Your task to perform on an android device: Go to Google Image 0: 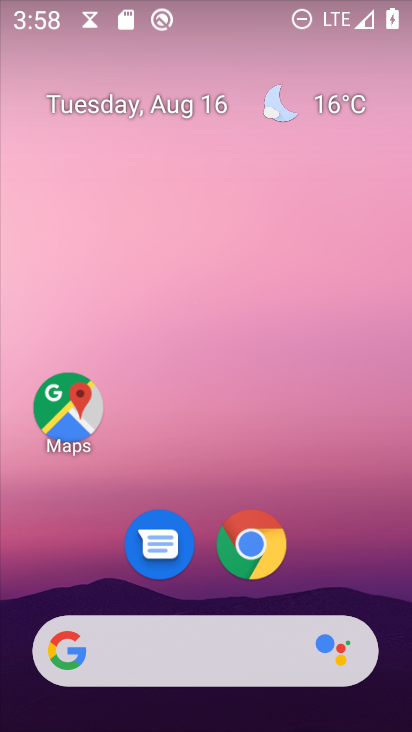
Step 0: drag from (223, 664) to (278, 107)
Your task to perform on an android device: Go to Google Image 1: 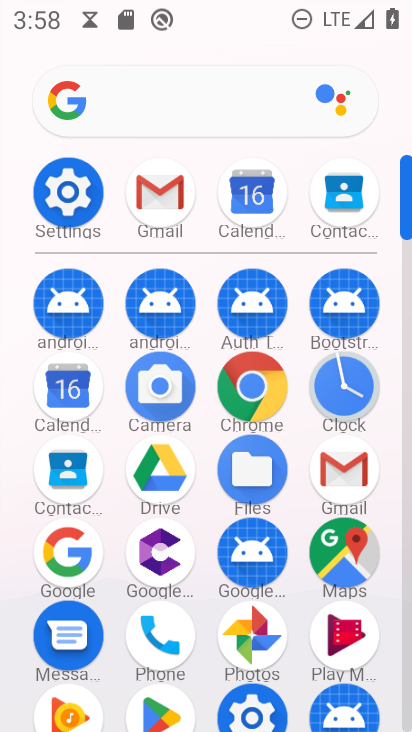
Step 1: click (61, 551)
Your task to perform on an android device: Go to Google Image 2: 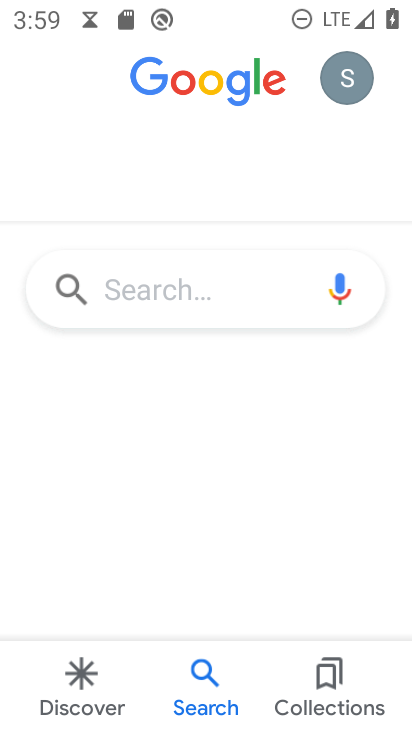
Step 2: task complete